Your task to perform on an android device: Check the news Image 0: 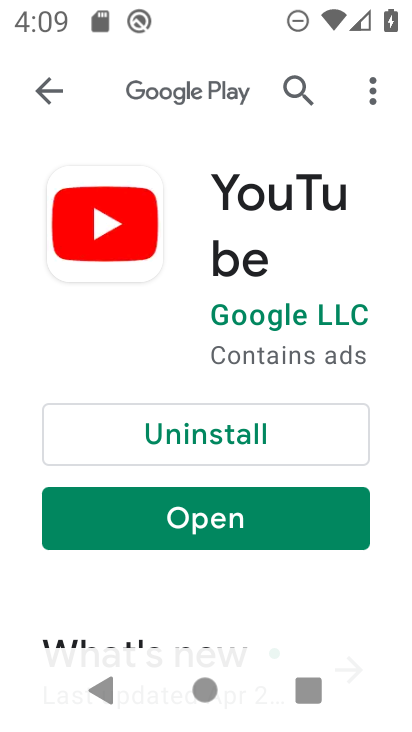
Step 0: press home button
Your task to perform on an android device: Check the news Image 1: 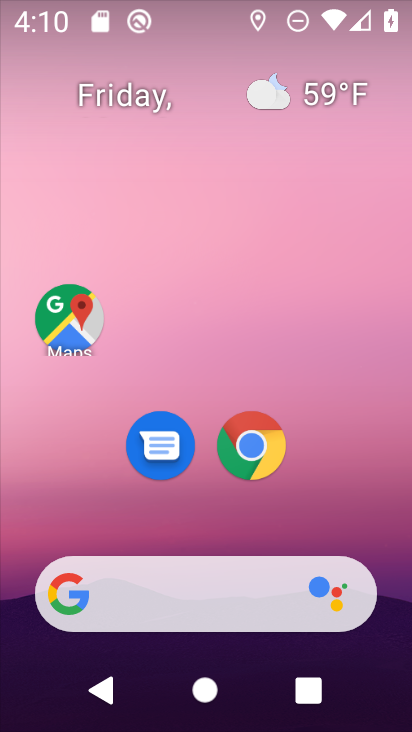
Step 1: task complete